Your task to perform on an android device: Show me popular videos on Youtube Image 0: 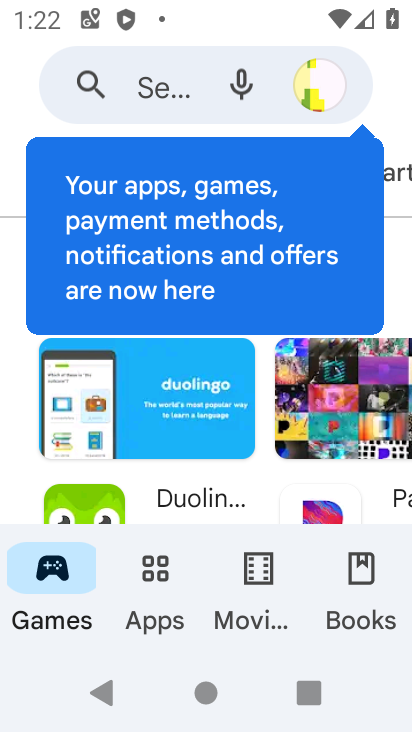
Step 0: press home button
Your task to perform on an android device: Show me popular videos on Youtube Image 1: 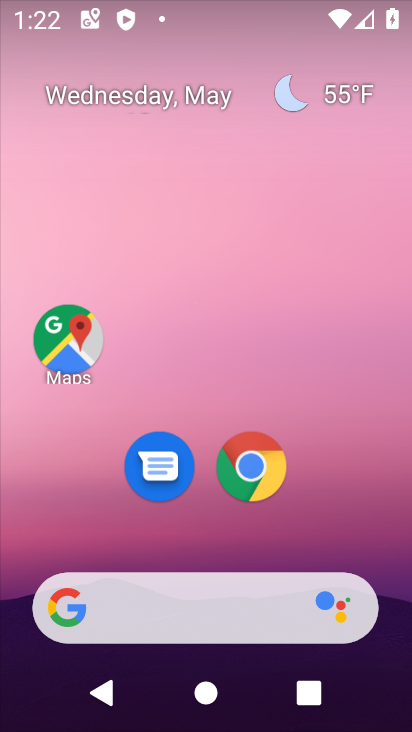
Step 1: drag from (308, 495) to (378, 29)
Your task to perform on an android device: Show me popular videos on Youtube Image 2: 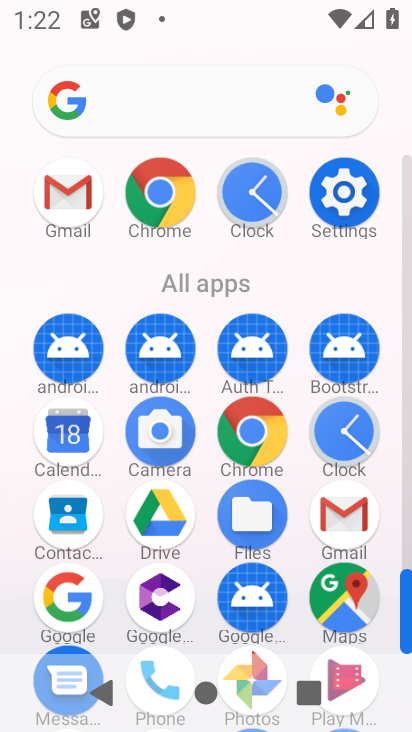
Step 2: drag from (292, 593) to (345, 243)
Your task to perform on an android device: Show me popular videos on Youtube Image 3: 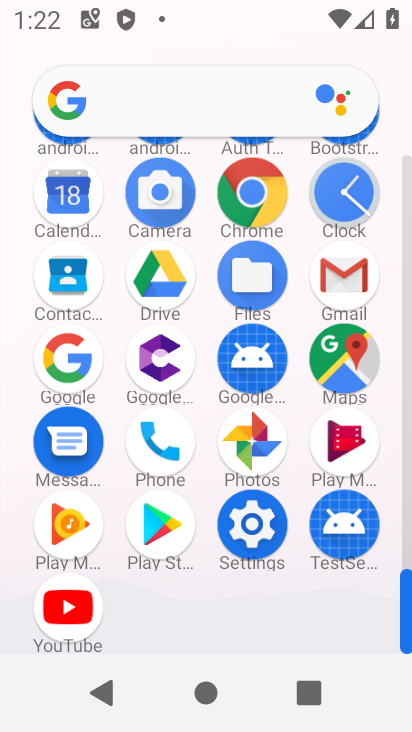
Step 3: click (62, 613)
Your task to perform on an android device: Show me popular videos on Youtube Image 4: 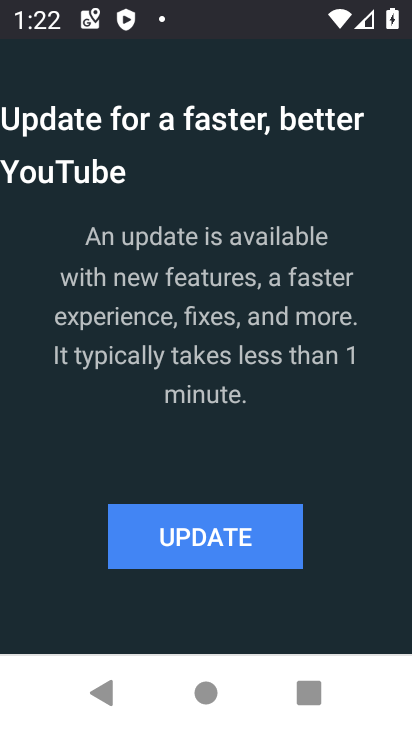
Step 4: click (234, 534)
Your task to perform on an android device: Show me popular videos on Youtube Image 5: 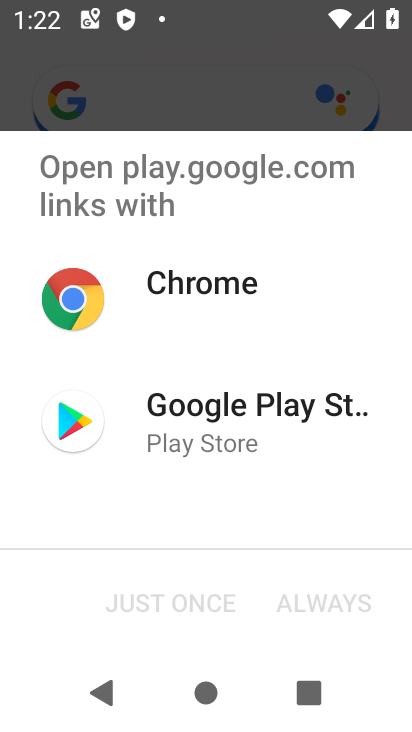
Step 5: click (163, 427)
Your task to perform on an android device: Show me popular videos on Youtube Image 6: 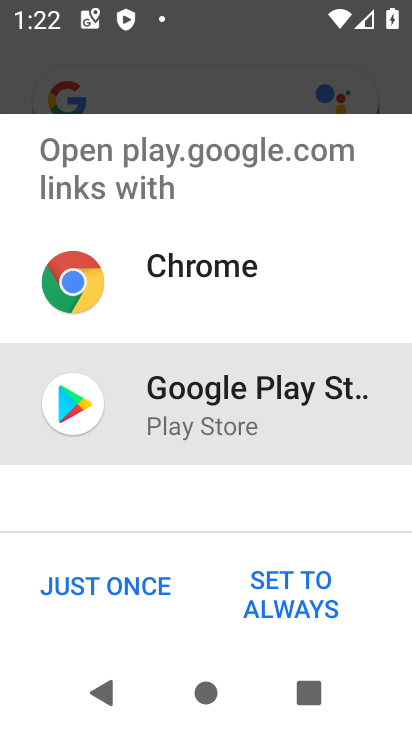
Step 6: click (58, 598)
Your task to perform on an android device: Show me popular videos on Youtube Image 7: 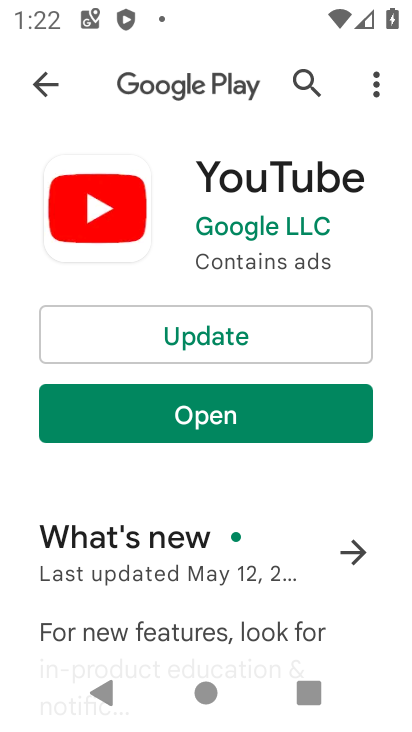
Step 7: click (239, 327)
Your task to perform on an android device: Show me popular videos on Youtube Image 8: 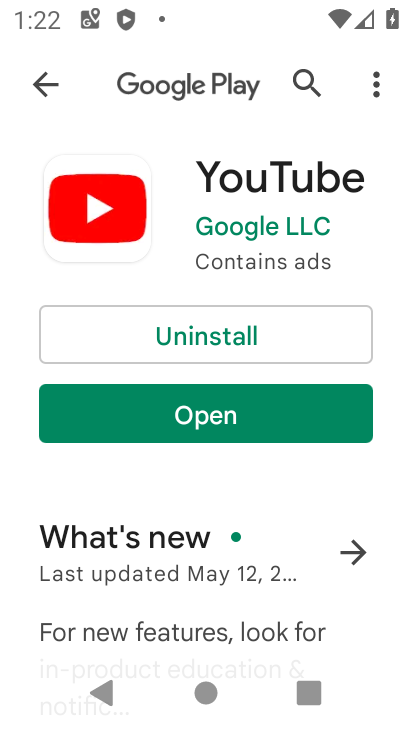
Step 8: click (191, 413)
Your task to perform on an android device: Show me popular videos on Youtube Image 9: 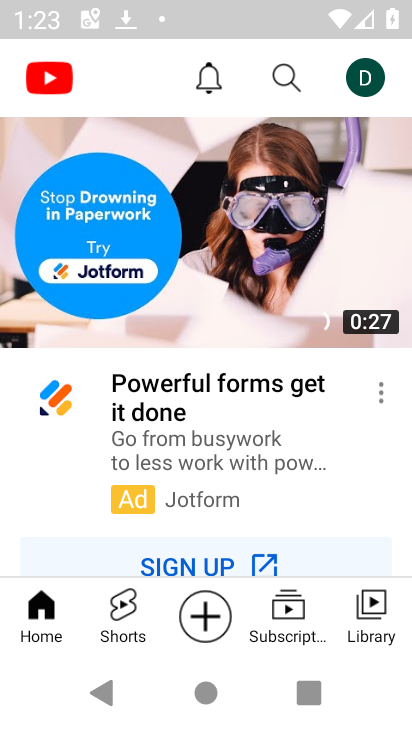
Step 9: drag from (108, 140) to (166, 452)
Your task to perform on an android device: Show me popular videos on Youtube Image 10: 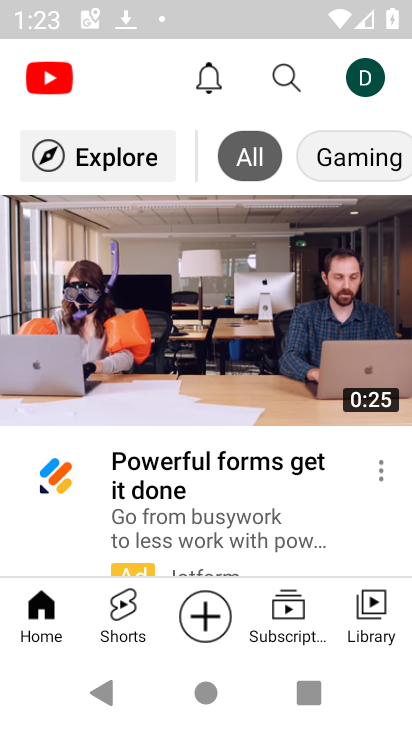
Step 10: click (127, 155)
Your task to perform on an android device: Show me popular videos on Youtube Image 11: 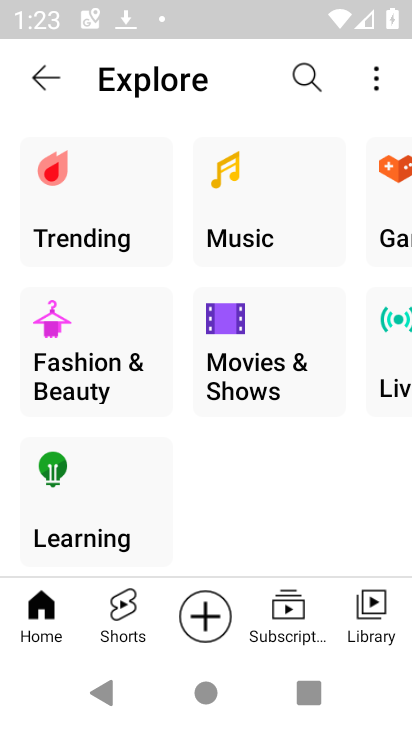
Step 11: click (103, 190)
Your task to perform on an android device: Show me popular videos on Youtube Image 12: 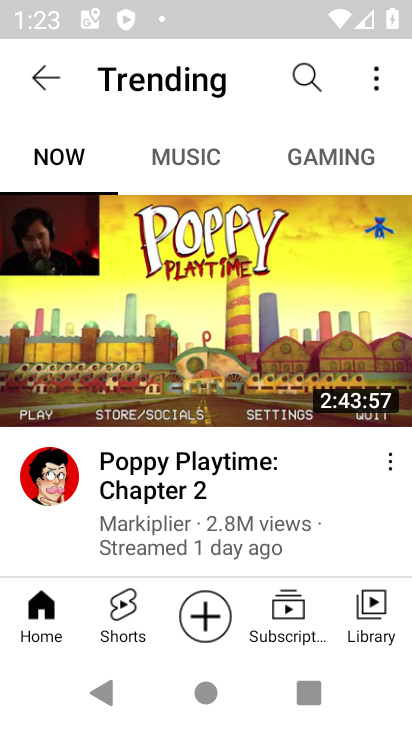
Step 12: task complete